Your task to perform on an android device: open chrome privacy settings Image 0: 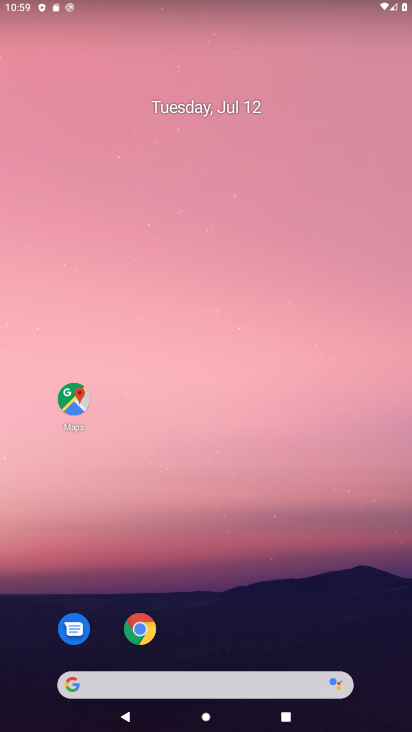
Step 0: drag from (260, 579) to (336, 108)
Your task to perform on an android device: open chrome privacy settings Image 1: 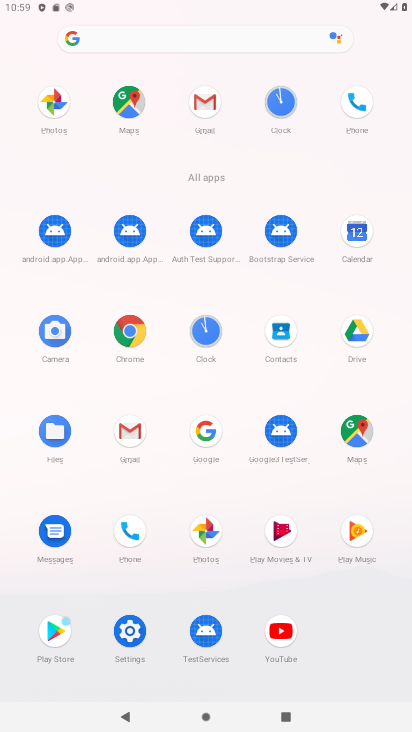
Step 1: click (134, 620)
Your task to perform on an android device: open chrome privacy settings Image 2: 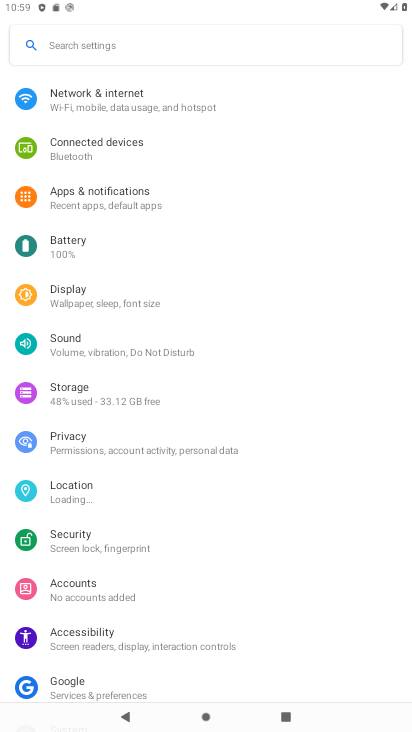
Step 2: drag from (293, 617) to (409, 520)
Your task to perform on an android device: open chrome privacy settings Image 3: 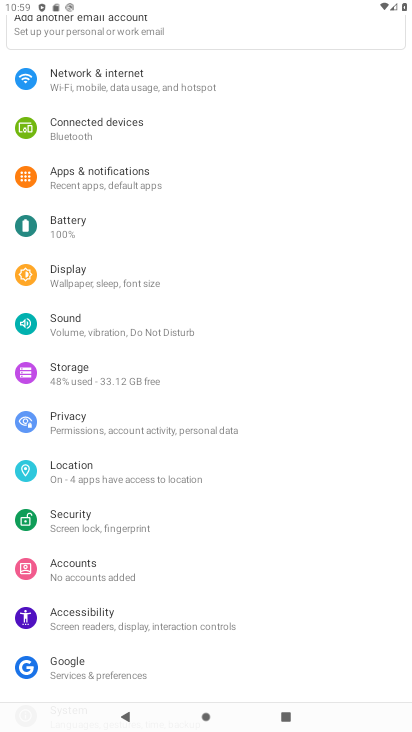
Step 3: click (103, 414)
Your task to perform on an android device: open chrome privacy settings Image 4: 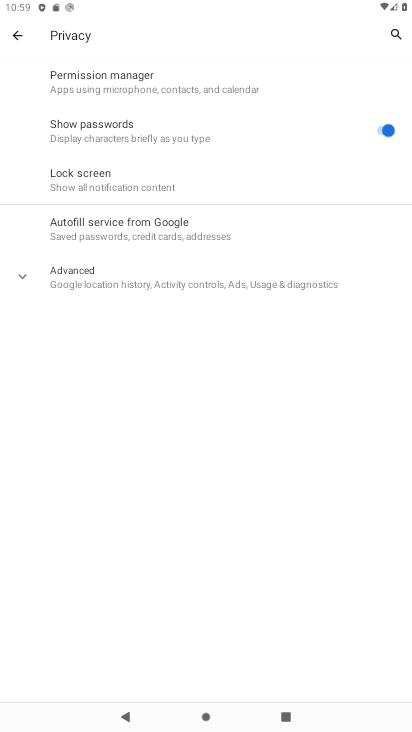
Step 4: task complete